Your task to perform on an android device: show emergency info Image 0: 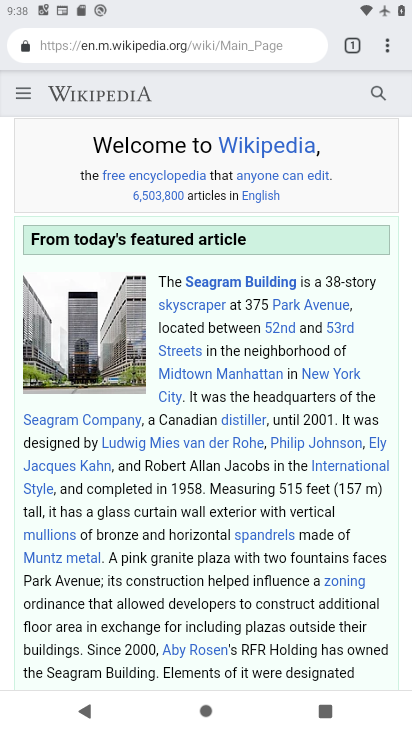
Step 0: press home button
Your task to perform on an android device: show emergency info Image 1: 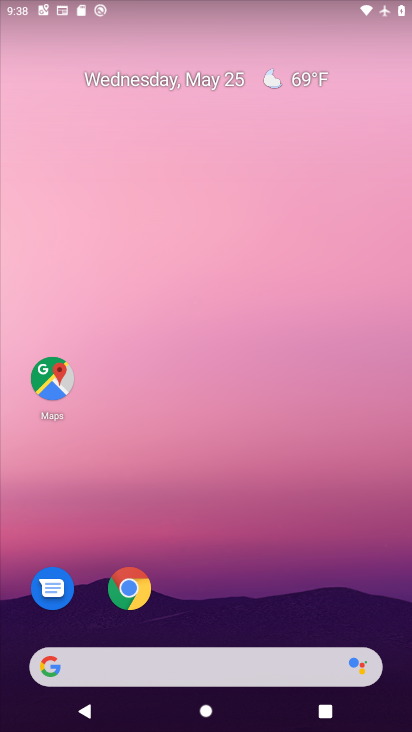
Step 1: drag from (346, 600) to (381, 211)
Your task to perform on an android device: show emergency info Image 2: 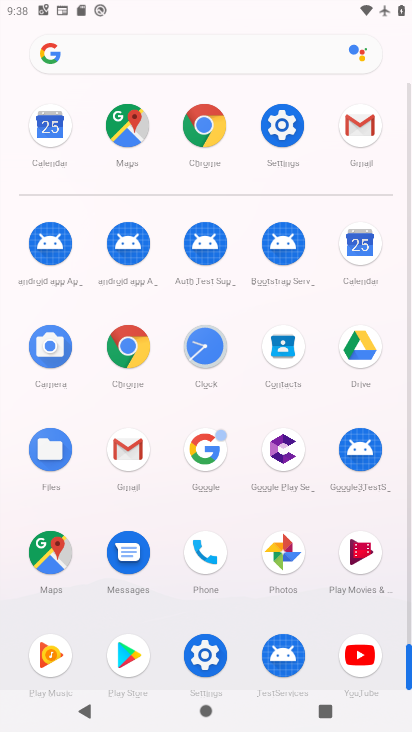
Step 2: click (281, 139)
Your task to perform on an android device: show emergency info Image 3: 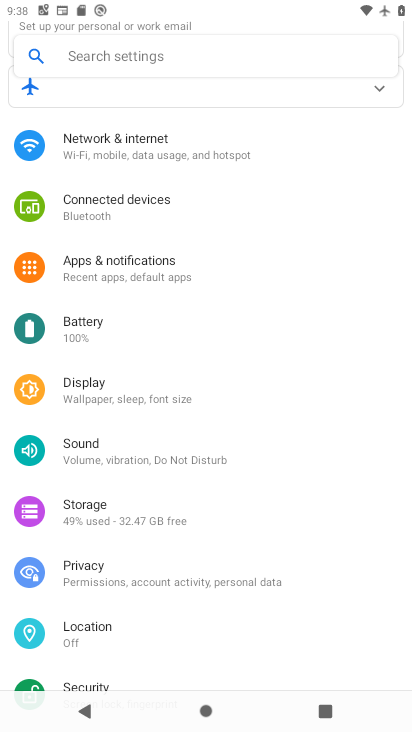
Step 3: drag from (369, 553) to (377, 473)
Your task to perform on an android device: show emergency info Image 4: 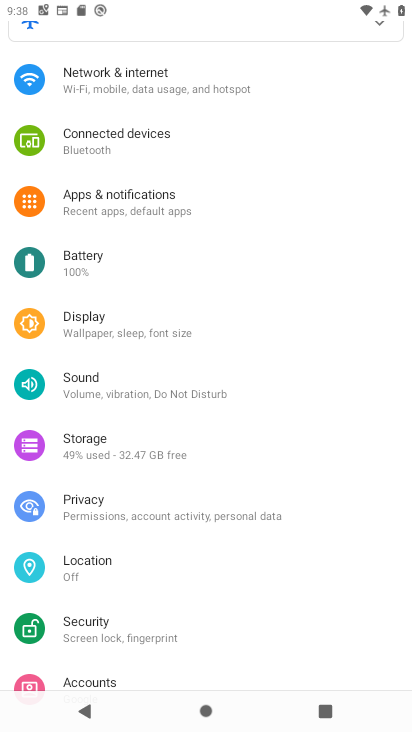
Step 4: drag from (361, 560) to (369, 410)
Your task to perform on an android device: show emergency info Image 5: 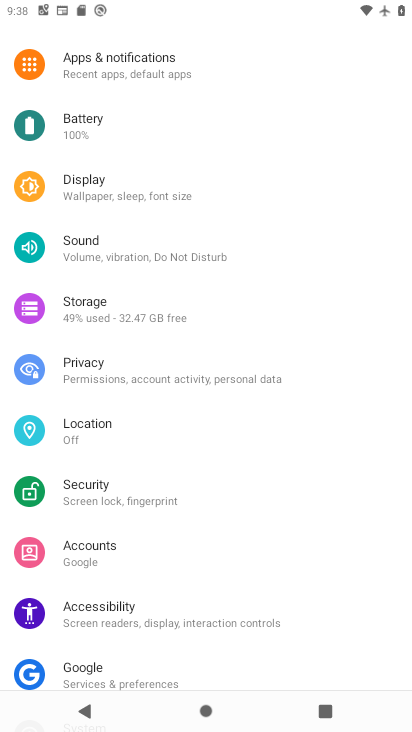
Step 5: drag from (362, 570) to (361, 410)
Your task to perform on an android device: show emergency info Image 6: 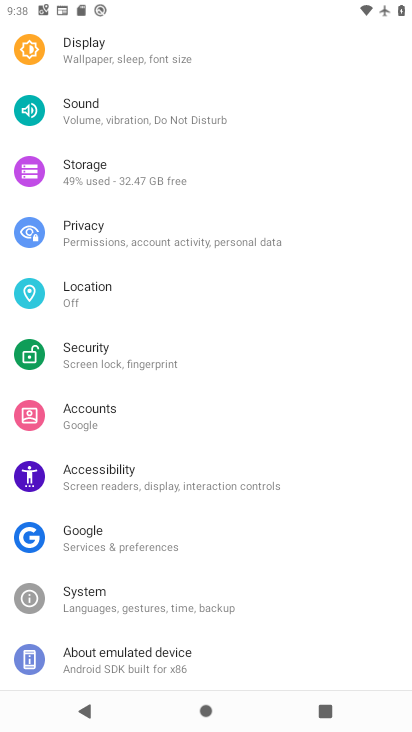
Step 6: drag from (362, 556) to (359, 415)
Your task to perform on an android device: show emergency info Image 7: 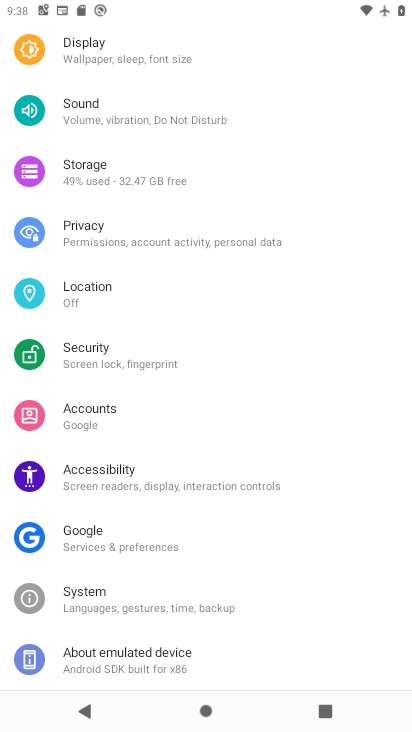
Step 7: click (224, 655)
Your task to perform on an android device: show emergency info Image 8: 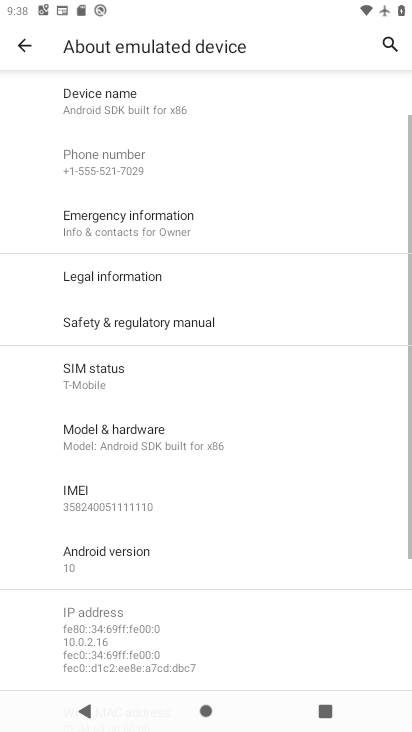
Step 8: click (190, 221)
Your task to perform on an android device: show emergency info Image 9: 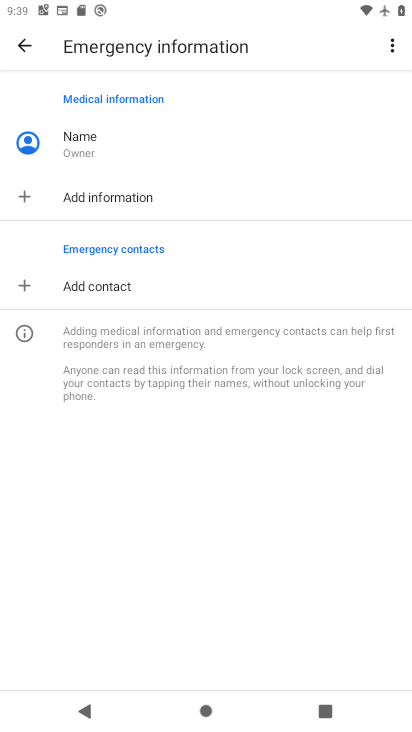
Step 9: task complete